Your task to perform on an android device: delete browsing data in the chrome app Image 0: 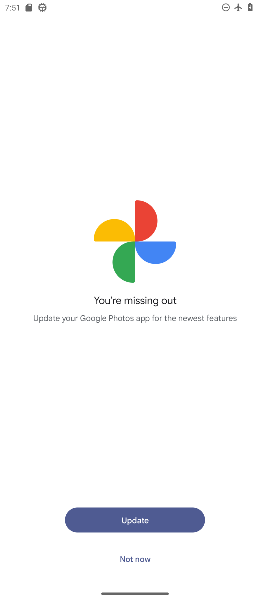
Step 0: press home button
Your task to perform on an android device: delete browsing data in the chrome app Image 1: 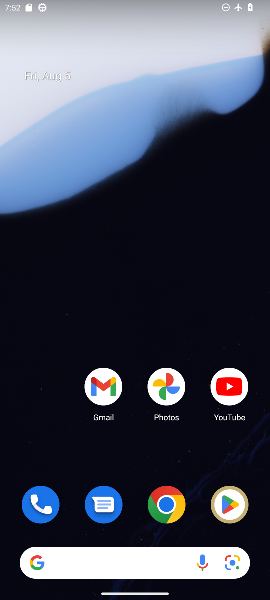
Step 1: click (162, 511)
Your task to perform on an android device: delete browsing data in the chrome app Image 2: 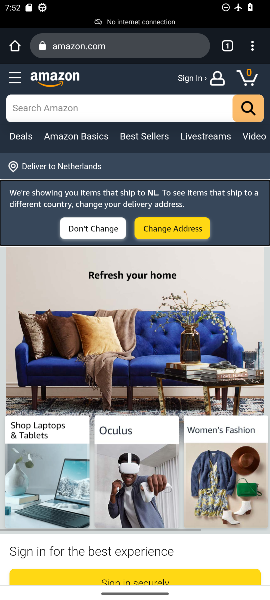
Step 2: drag from (255, 42) to (164, 145)
Your task to perform on an android device: delete browsing data in the chrome app Image 3: 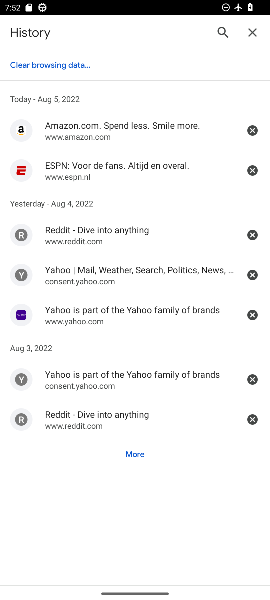
Step 3: click (50, 60)
Your task to perform on an android device: delete browsing data in the chrome app Image 4: 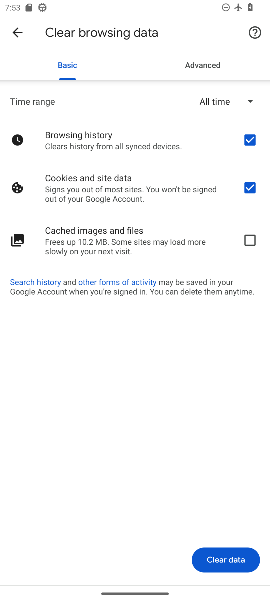
Step 4: click (214, 552)
Your task to perform on an android device: delete browsing data in the chrome app Image 5: 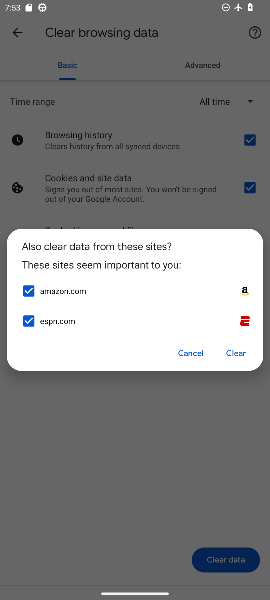
Step 5: click (228, 354)
Your task to perform on an android device: delete browsing data in the chrome app Image 6: 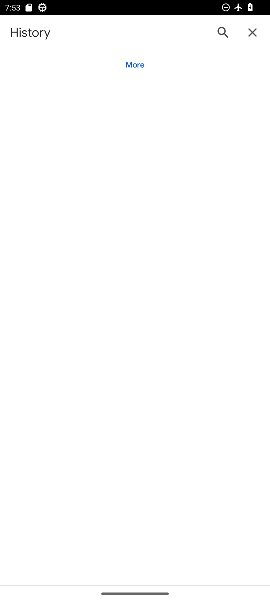
Step 6: task complete